Your task to perform on an android device: Open Google Image 0: 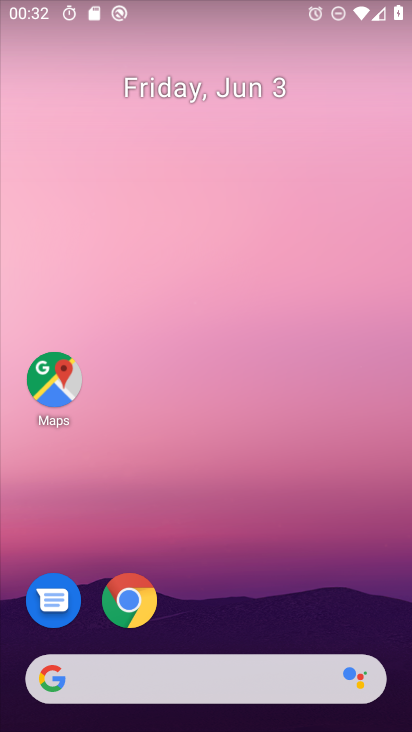
Step 0: drag from (254, 600) to (243, 152)
Your task to perform on an android device: Open Google Image 1: 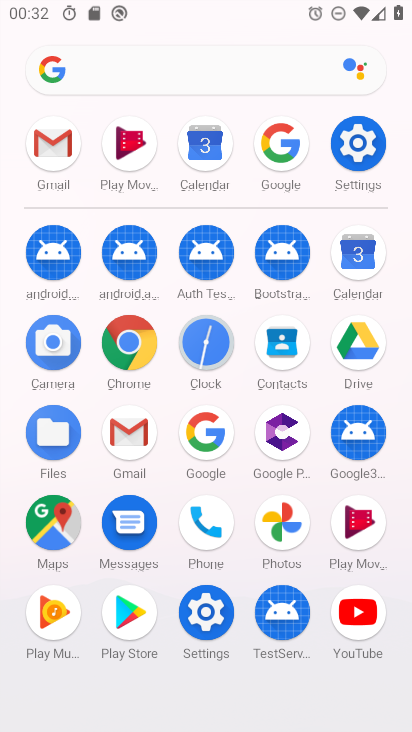
Step 1: click (202, 438)
Your task to perform on an android device: Open Google Image 2: 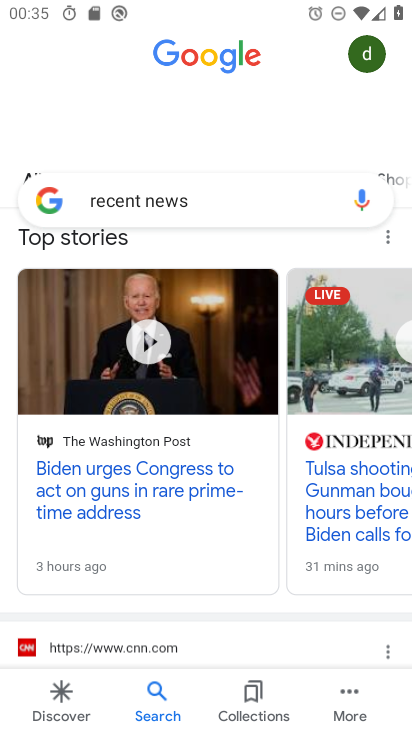
Step 2: task complete